Your task to perform on an android device: Open the calendar and show me this week's events? Image 0: 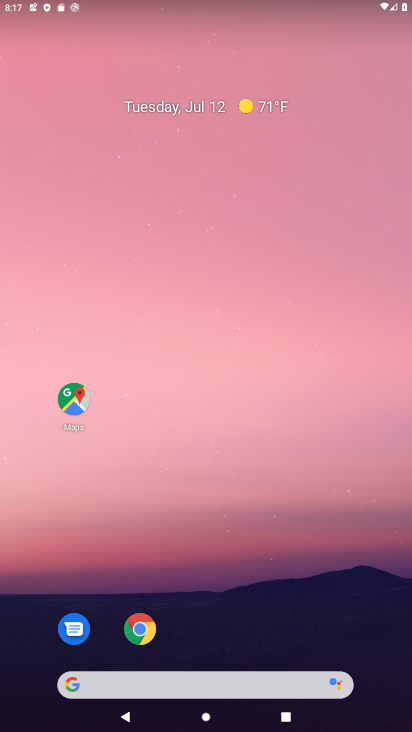
Step 0: drag from (392, 716) to (366, 2)
Your task to perform on an android device: Open the calendar and show me this week's events? Image 1: 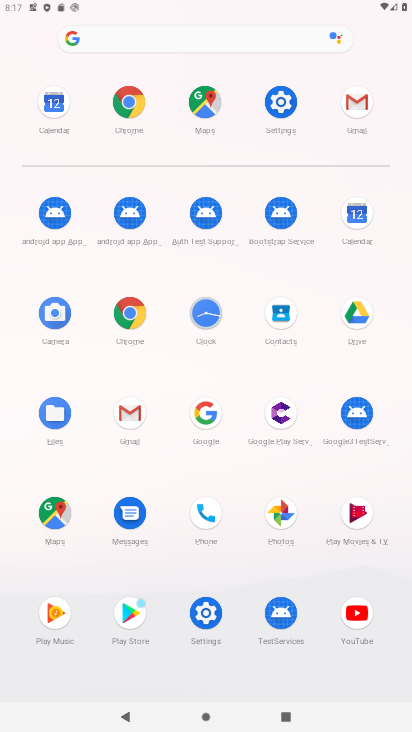
Step 1: click (347, 211)
Your task to perform on an android device: Open the calendar and show me this week's events? Image 2: 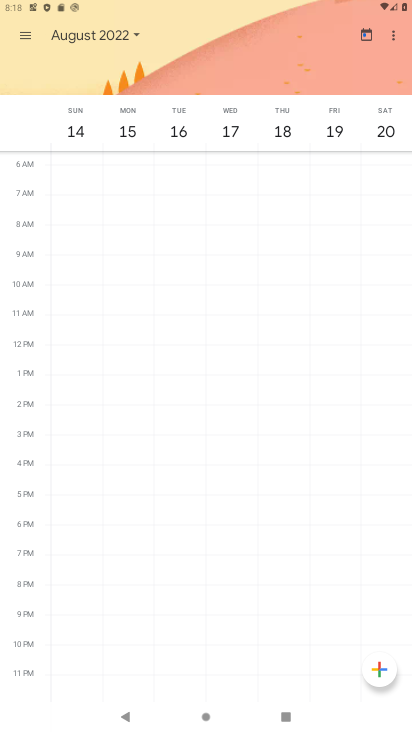
Step 2: click (137, 31)
Your task to perform on an android device: Open the calendar and show me this week's events? Image 3: 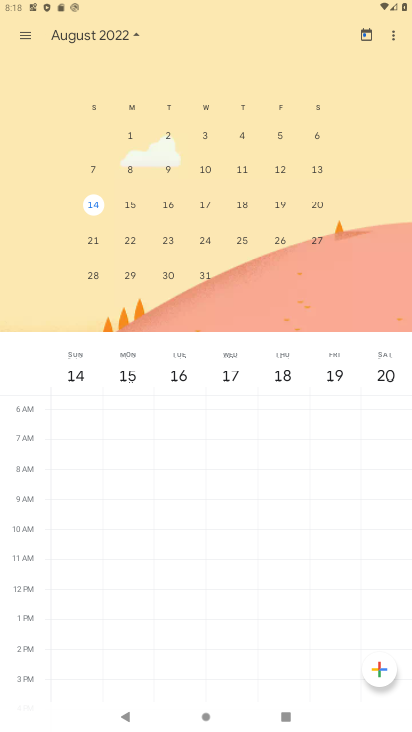
Step 3: drag from (57, 160) to (389, 156)
Your task to perform on an android device: Open the calendar and show me this week's events? Image 4: 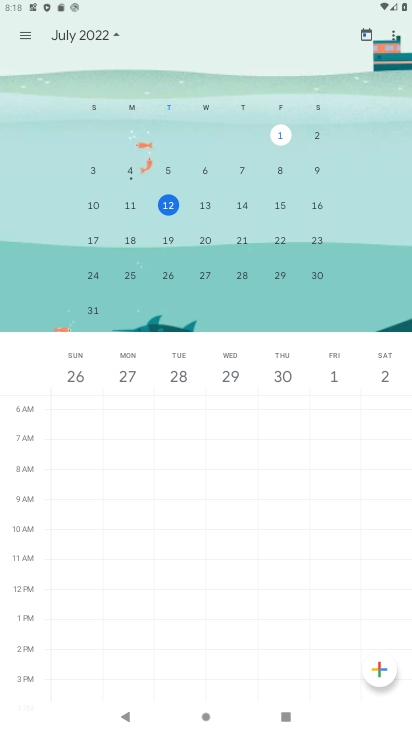
Step 4: click (22, 35)
Your task to perform on an android device: Open the calendar and show me this week's events? Image 5: 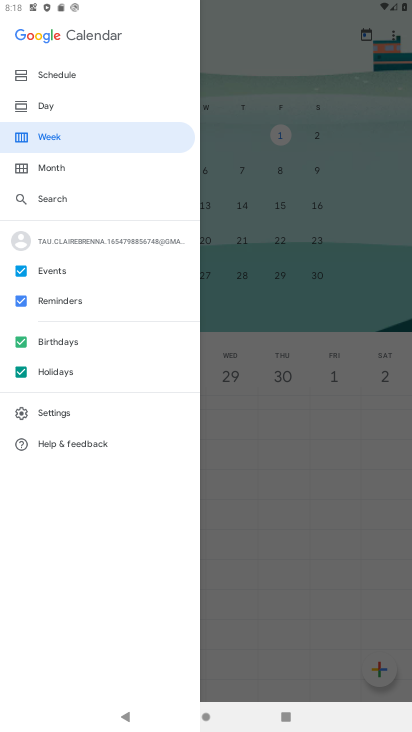
Step 5: click (40, 136)
Your task to perform on an android device: Open the calendar and show me this week's events? Image 6: 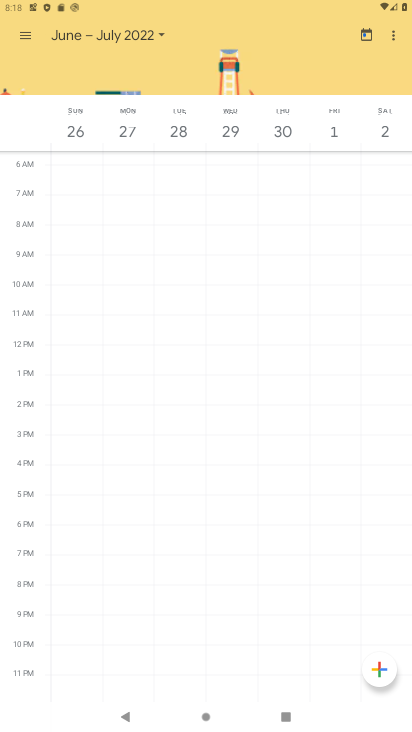
Step 6: task complete